Your task to perform on an android device: Open Yahoo.com Image 0: 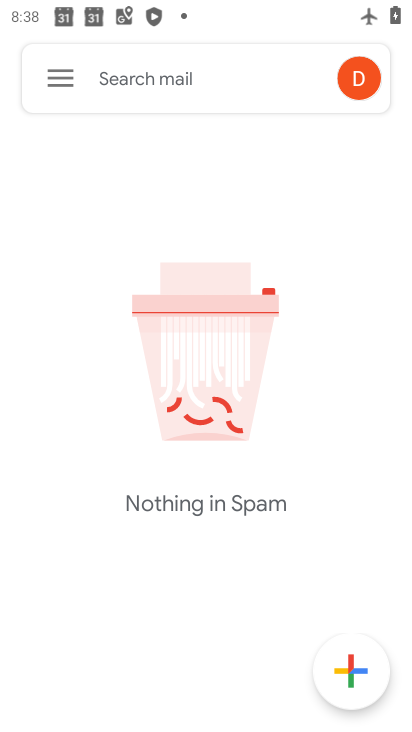
Step 0: press home button
Your task to perform on an android device: Open Yahoo.com Image 1: 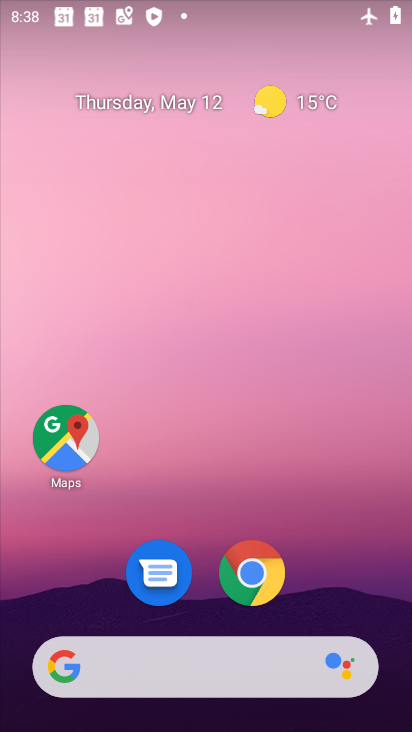
Step 1: click (248, 566)
Your task to perform on an android device: Open Yahoo.com Image 2: 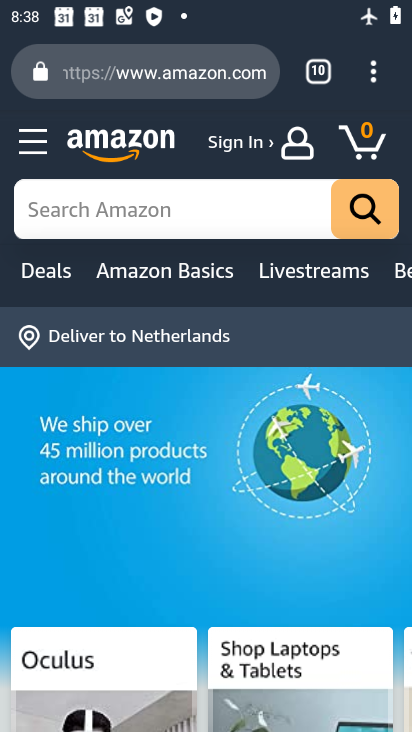
Step 2: click (373, 71)
Your task to perform on an android device: Open Yahoo.com Image 3: 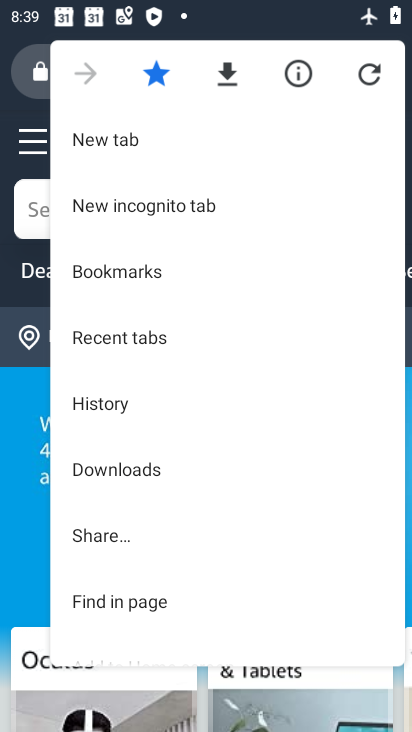
Step 3: click (114, 140)
Your task to perform on an android device: Open Yahoo.com Image 4: 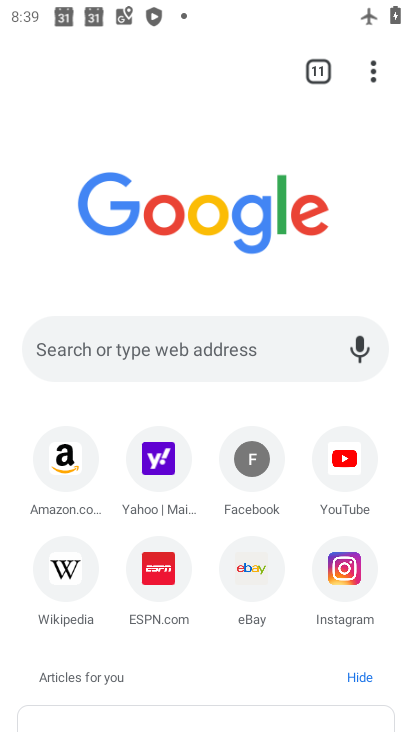
Step 4: click (156, 453)
Your task to perform on an android device: Open Yahoo.com Image 5: 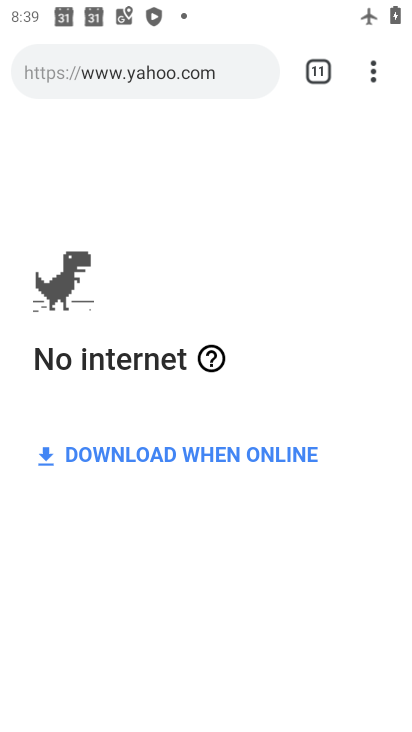
Step 5: task complete